Your task to perform on an android device: Open settings on Google Maps Image 0: 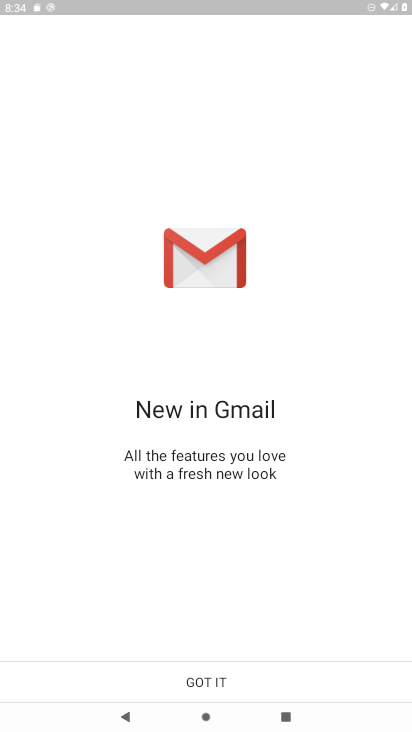
Step 0: press home button
Your task to perform on an android device: Open settings on Google Maps Image 1: 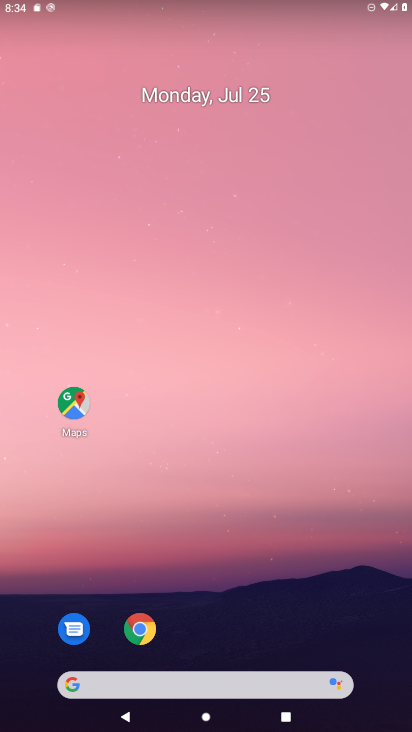
Step 1: click (75, 398)
Your task to perform on an android device: Open settings on Google Maps Image 2: 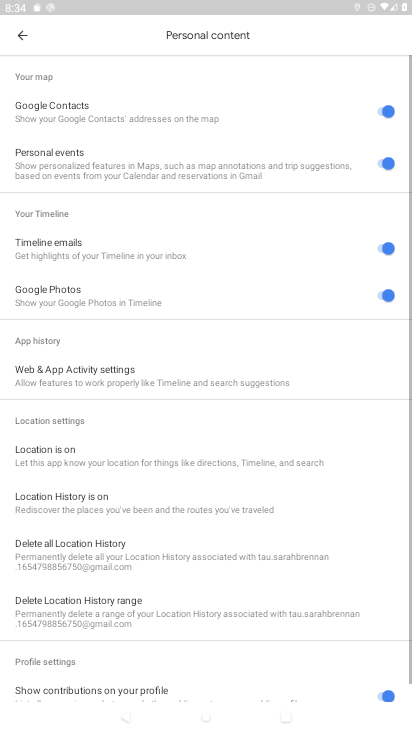
Step 2: click (22, 33)
Your task to perform on an android device: Open settings on Google Maps Image 3: 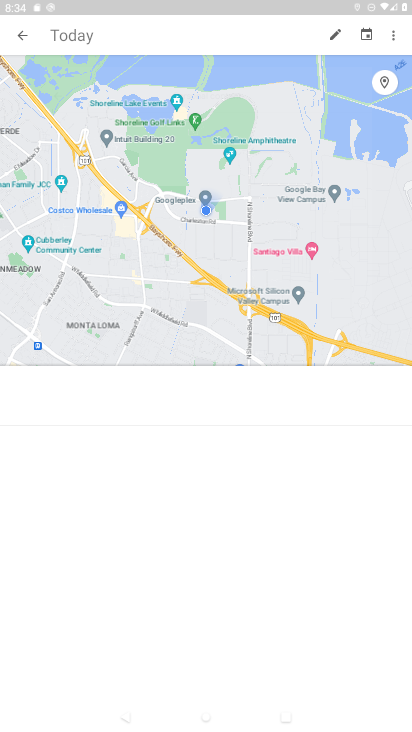
Step 3: click (22, 33)
Your task to perform on an android device: Open settings on Google Maps Image 4: 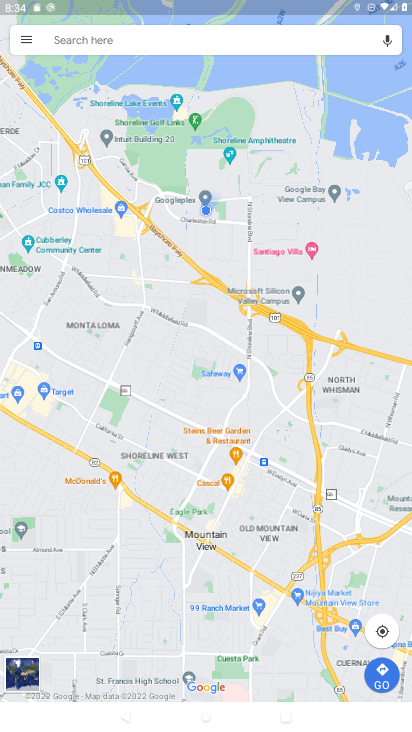
Step 4: click (25, 40)
Your task to perform on an android device: Open settings on Google Maps Image 5: 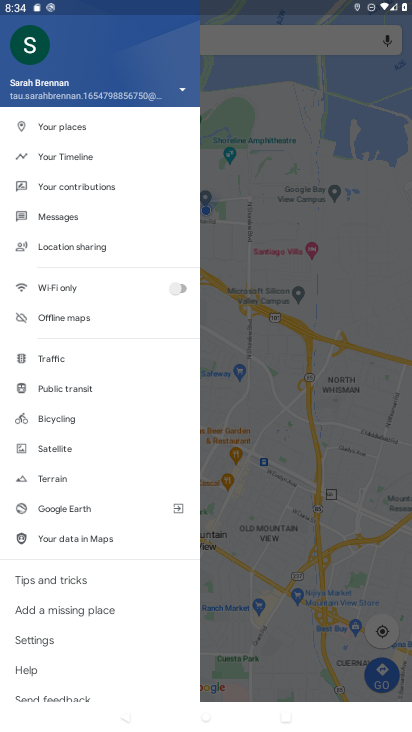
Step 5: click (30, 638)
Your task to perform on an android device: Open settings on Google Maps Image 6: 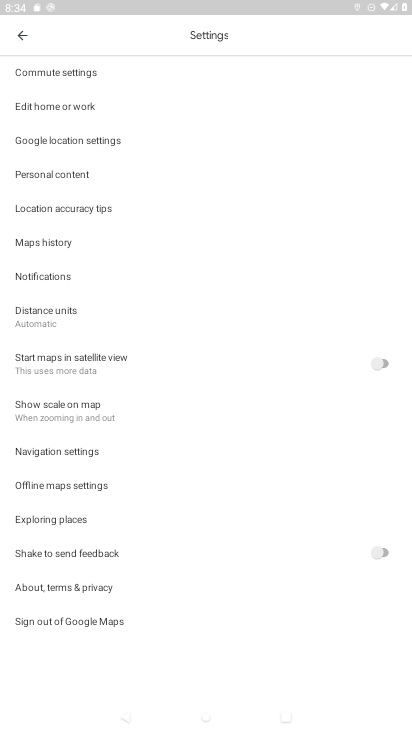
Step 6: task complete